Your task to perform on an android device: toggle location history Image 0: 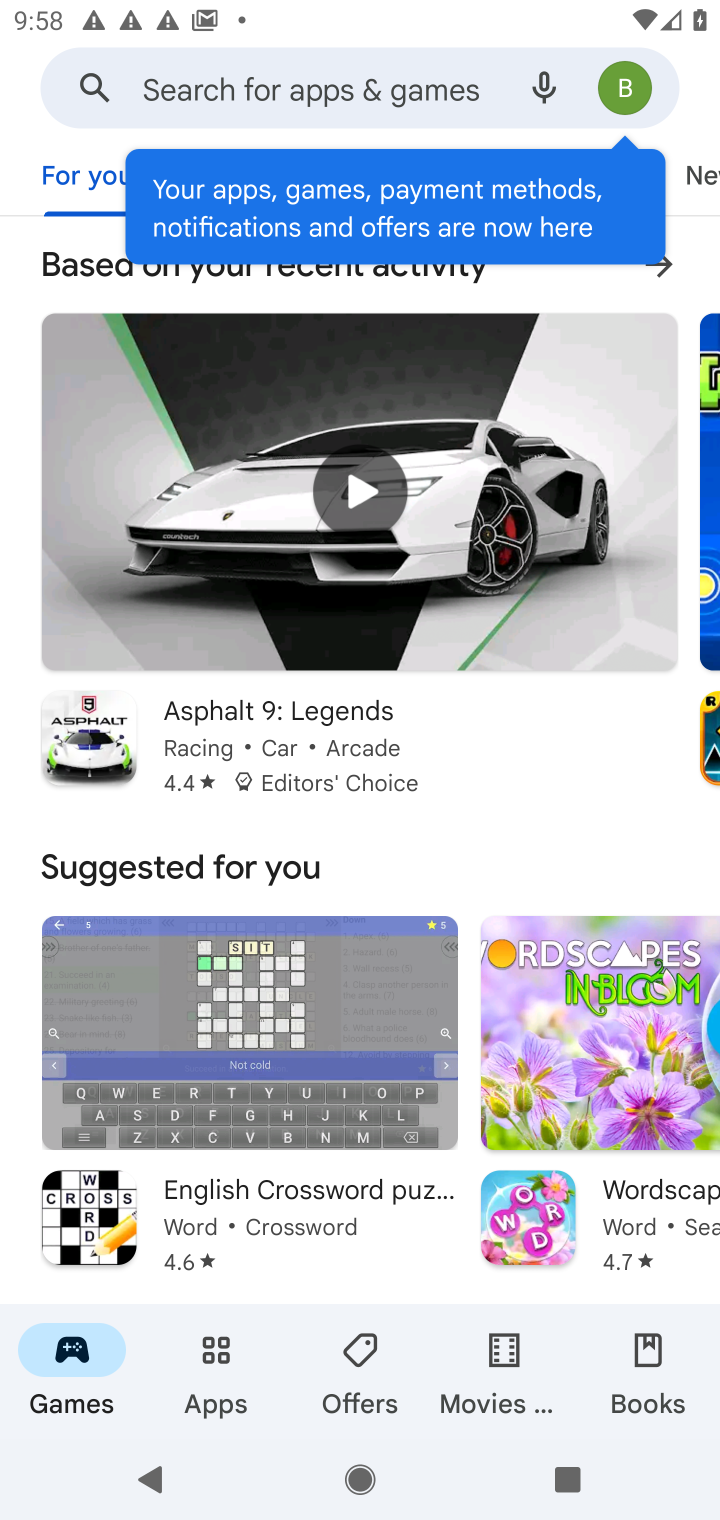
Step 0: task complete